Your task to perform on an android device: Open display settings Image 0: 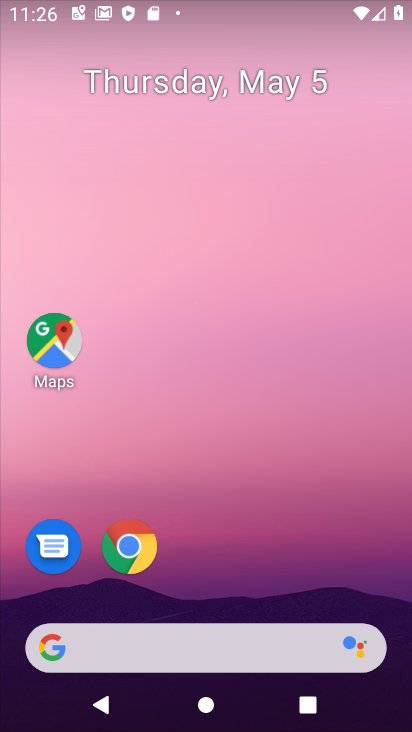
Step 0: drag from (279, 438) to (284, 172)
Your task to perform on an android device: Open display settings Image 1: 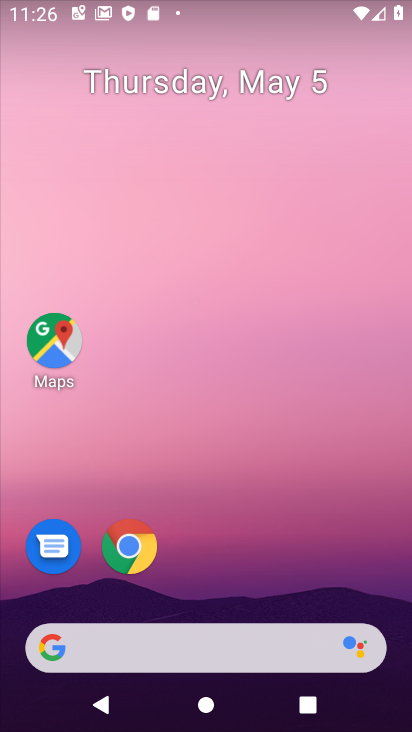
Step 1: drag from (277, 529) to (275, 62)
Your task to perform on an android device: Open display settings Image 2: 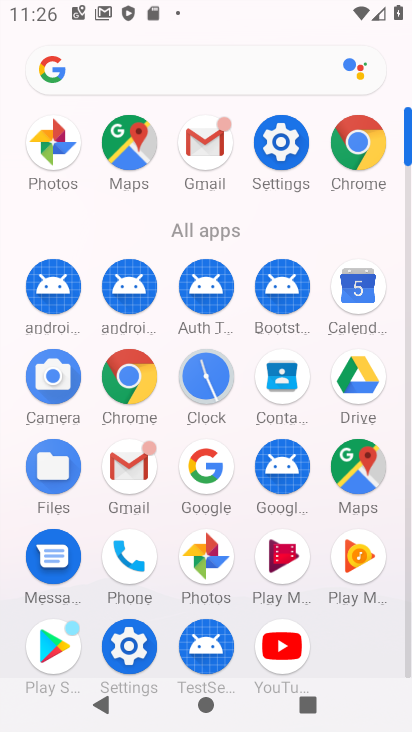
Step 2: click (287, 146)
Your task to perform on an android device: Open display settings Image 3: 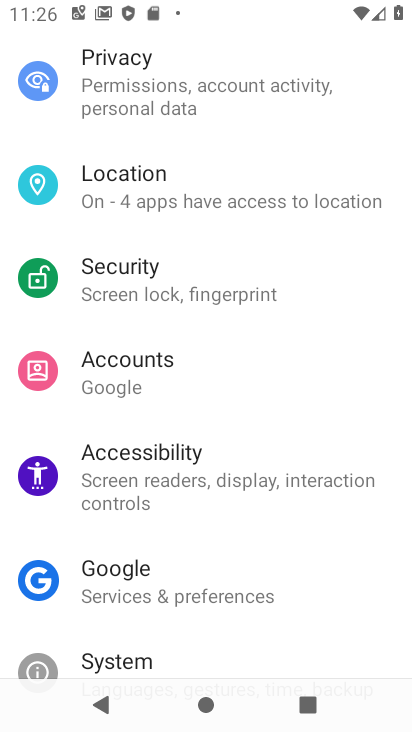
Step 3: drag from (229, 162) to (233, 468)
Your task to perform on an android device: Open display settings Image 4: 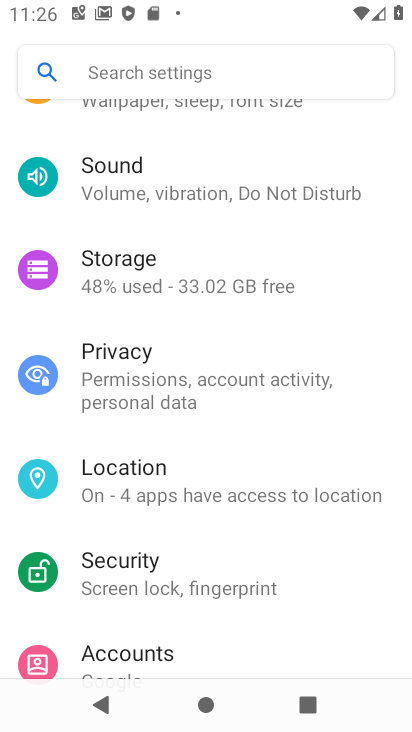
Step 4: drag from (208, 233) to (228, 567)
Your task to perform on an android device: Open display settings Image 5: 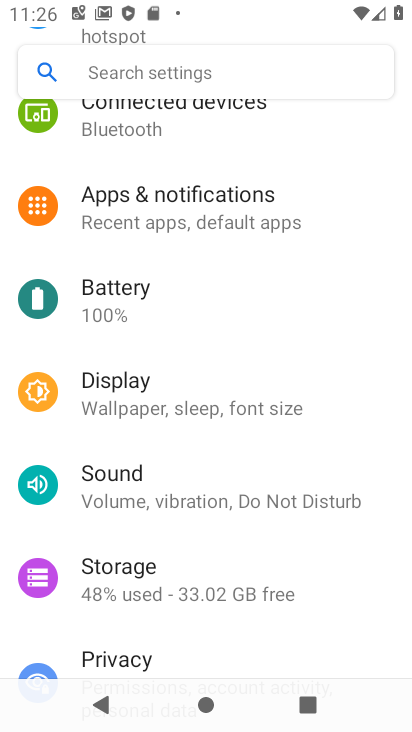
Step 5: click (197, 415)
Your task to perform on an android device: Open display settings Image 6: 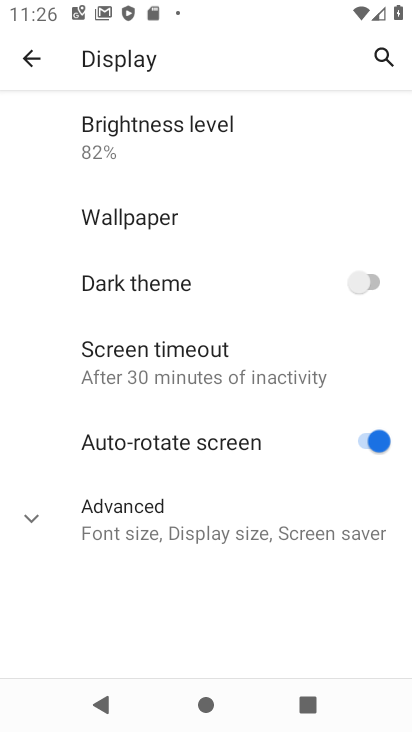
Step 6: task complete